Your task to perform on an android device: Open Google Image 0: 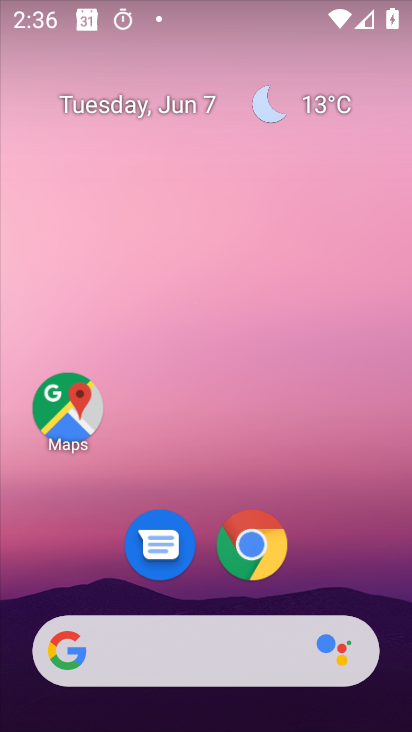
Step 0: drag from (376, 483) to (304, 3)
Your task to perform on an android device: Open Google Image 1: 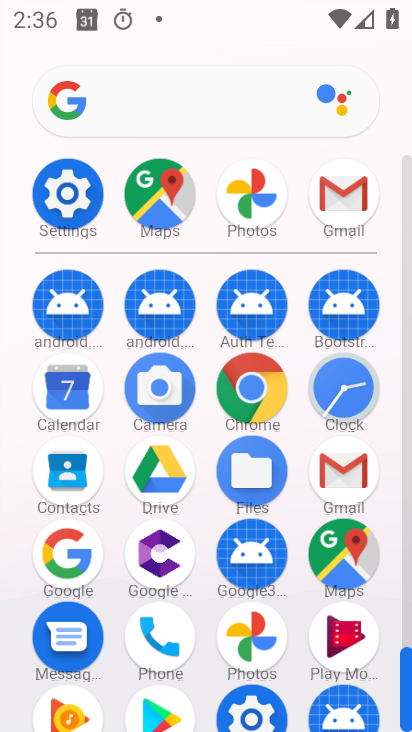
Step 1: click (63, 559)
Your task to perform on an android device: Open Google Image 2: 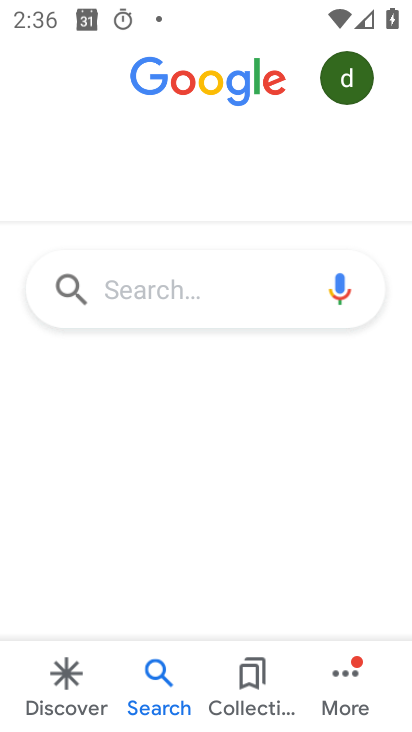
Step 2: task complete